Your task to perform on an android device: See recent photos Image 0: 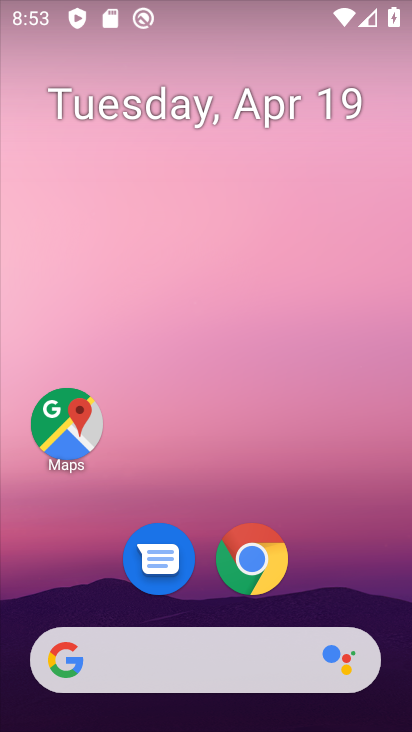
Step 0: drag from (378, 599) to (166, 250)
Your task to perform on an android device: See recent photos Image 1: 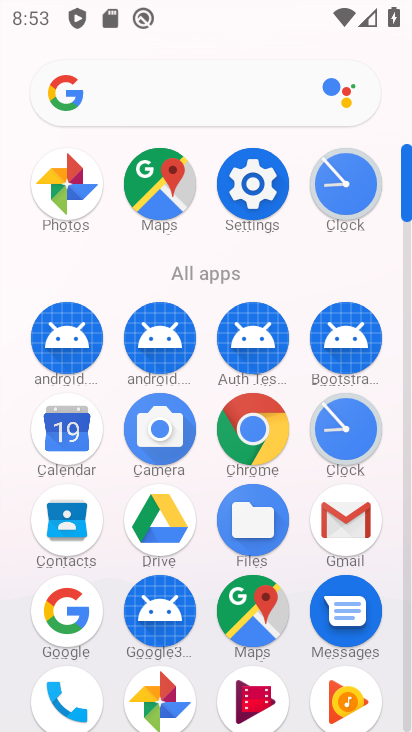
Step 1: click (73, 200)
Your task to perform on an android device: See recent photos Image 2: 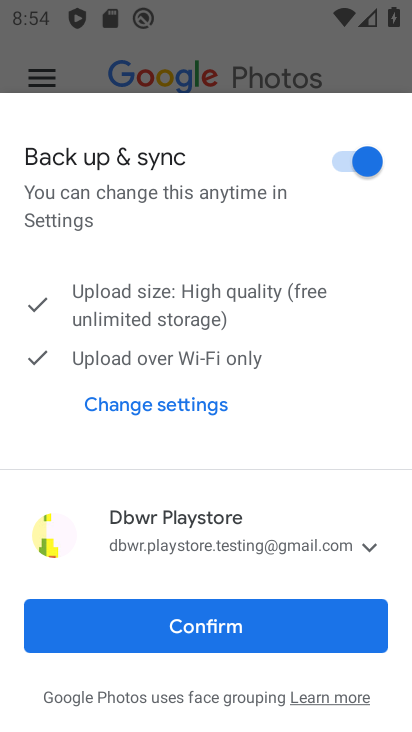
Step 2: click (354, 606)
Your task to perform on an android device: See recent photos Image 3: 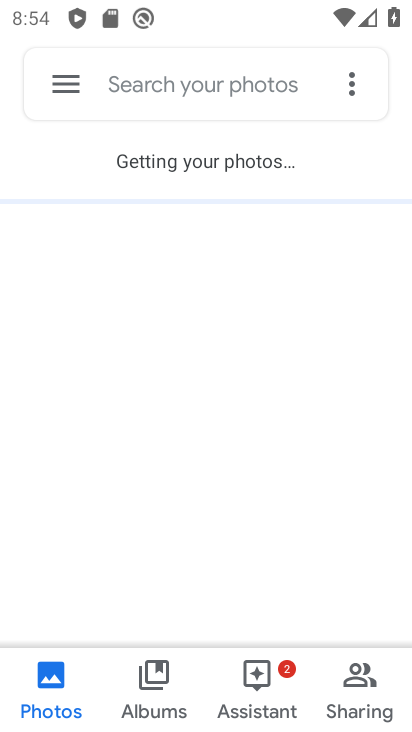
Step 3: click (34, 690)
Your task to perform on an android device: See recent photos Image 4: 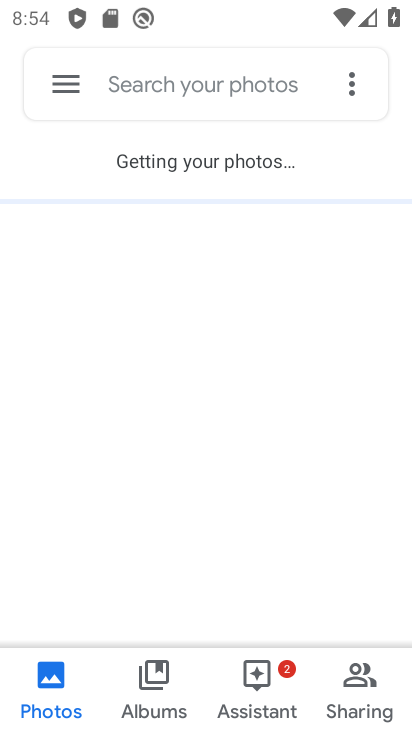
Step 4: click (55, 82)
Your task to perform on an android device: See recent photos Image 5: 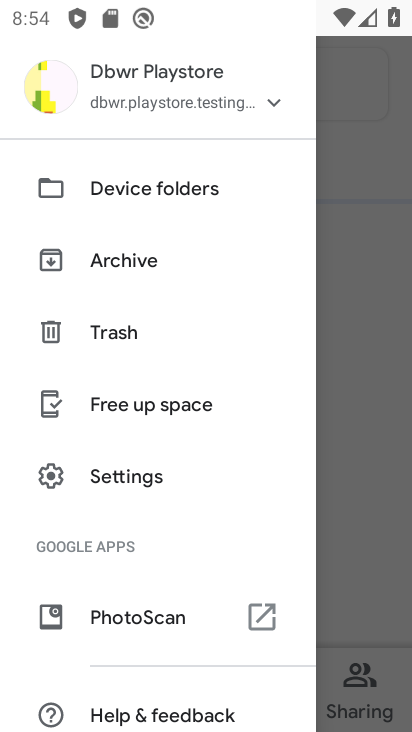
Step 5: click (378, 232)
Your task to perform on an android device: See recent photos Image 6: 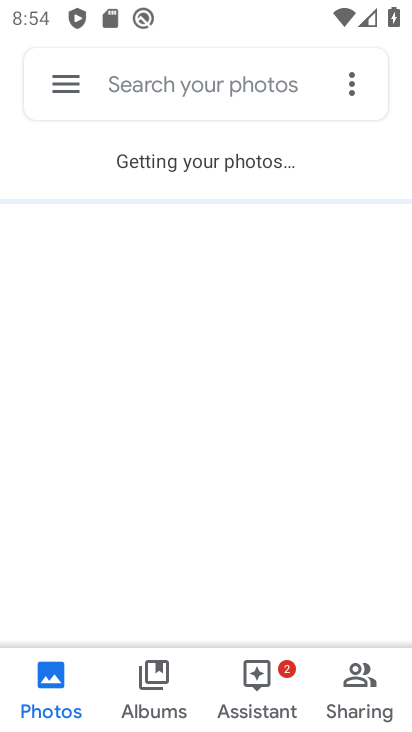
Step 6: click (31, 694)
Your task to perform on an android device: See recent photos Image 7: 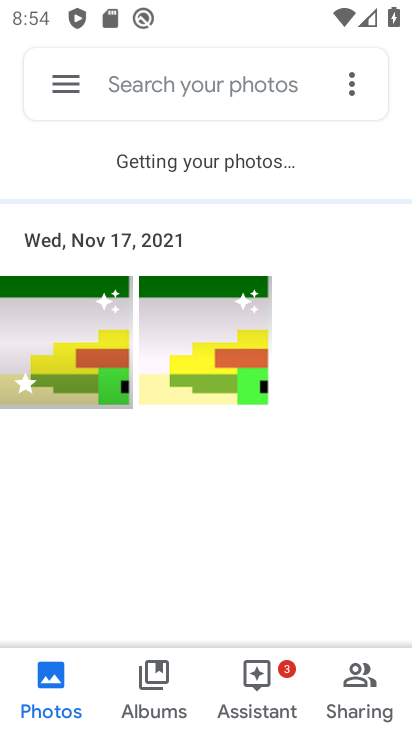
Step 7: click (61, 345)
Your task to perform on an android device: See recent photos Image 8: 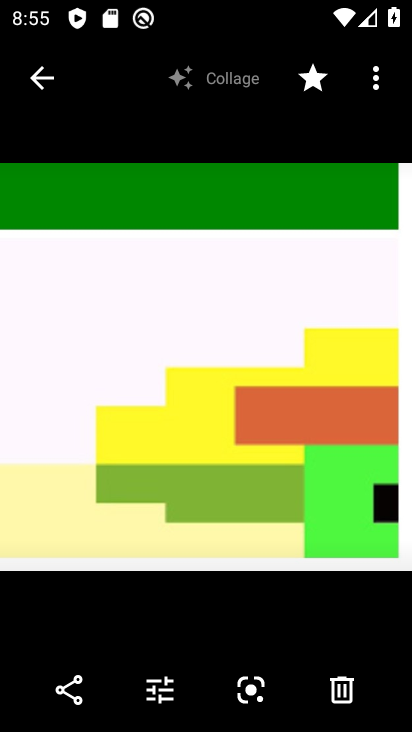
Step 8: click (24, 71)
Your task to perform on an android device: See recent photos Image 9: 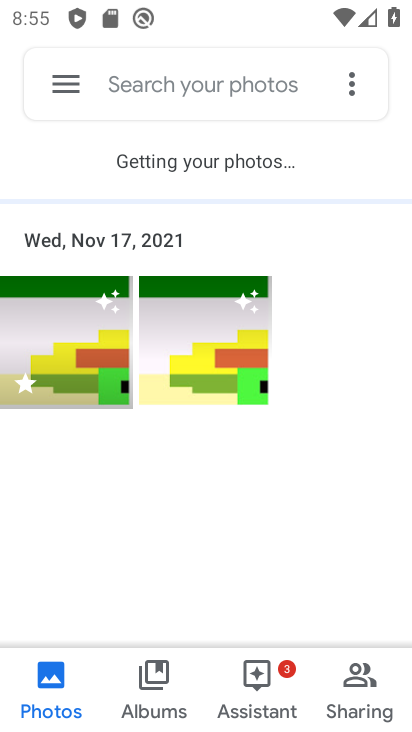
Step 9: click (196, 322)
Your task to perform on an android device: See recent photos Image 10: 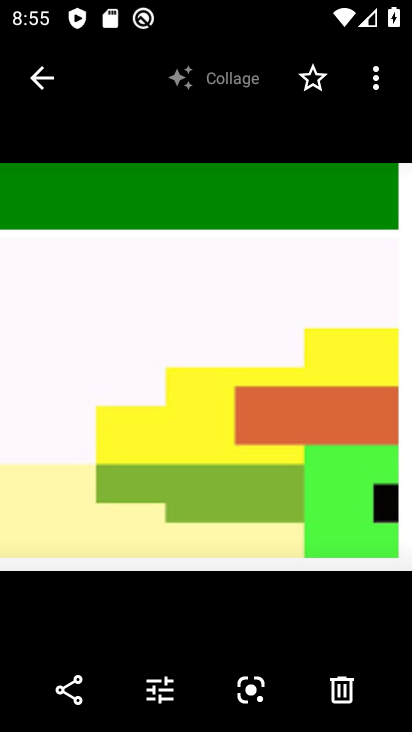
Step 10: task complete